Your task to perform on an android device: add a contact Image 0: 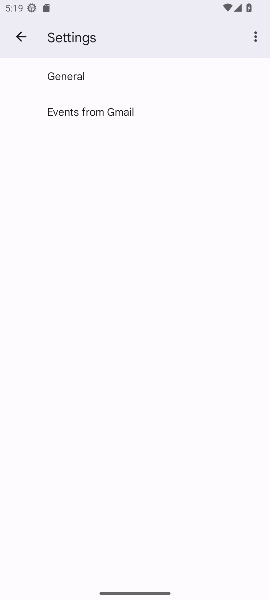
Step 0: press home button
Your task to perform on an android device: add a contact Image 1: 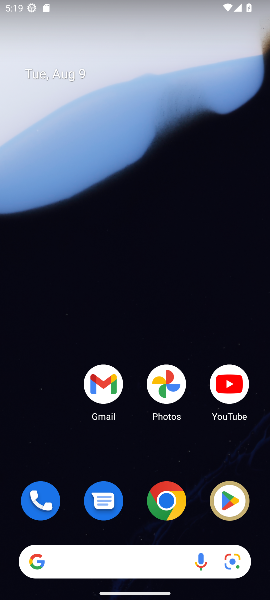
Step 1: drag from (137, 467) to (37, 24)
Your task to perform on an android device: add a contact Image 2: 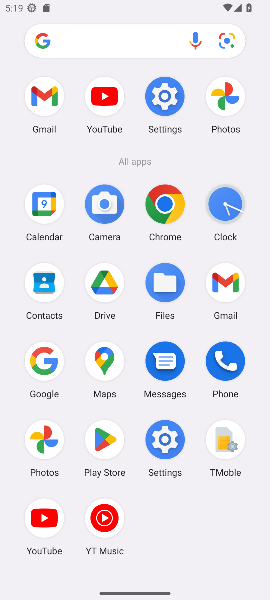
Step 2: click (232, 360)
Your task to perform on an android device: add a contact Image 3: 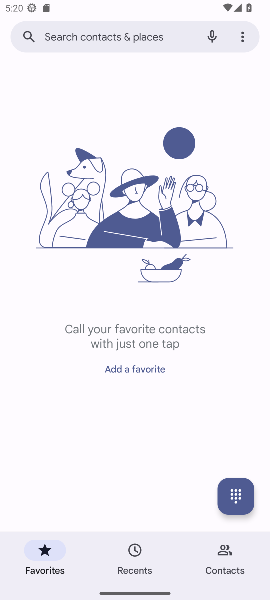
Step 3: press home button
Your task to perform on an android device: add a contact Image 4: 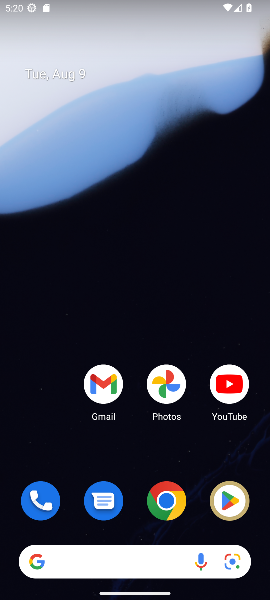
Step 4: drag from (117, 529) to (159, 54)
Your task to perform on an android device: add a contact Image 5: 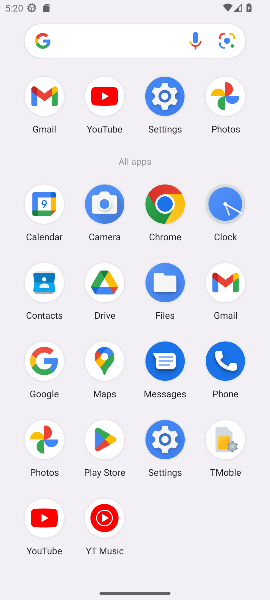
Step 5: click (38, 295)
Your task to perform on an android device: add a contact Image 6: 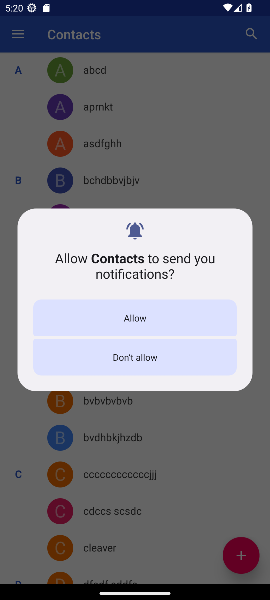
Step 6: click (127, 326)
Your task to perform on an android device: add a contact Image 7: 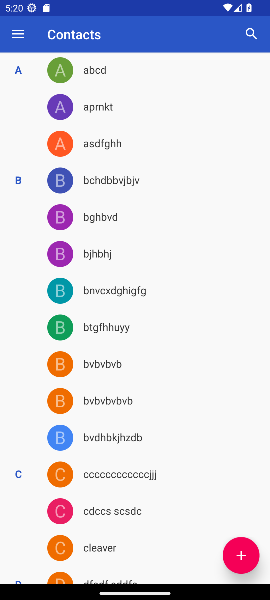
Step 7: click (237, 552)
Your task to perform on an android device: add a contact Image 8: 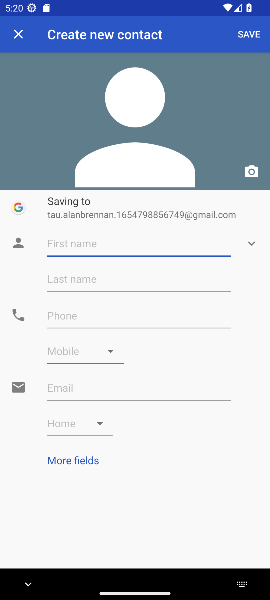
Step 8: type "tyuuuiiiiiiiii"
Your task to perform on an android device: add a contact Image 9: 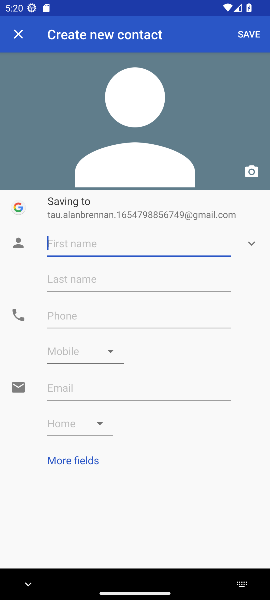
Step 9: click (126, 321)
Your task to perform on an android device: add a contact Image 10: 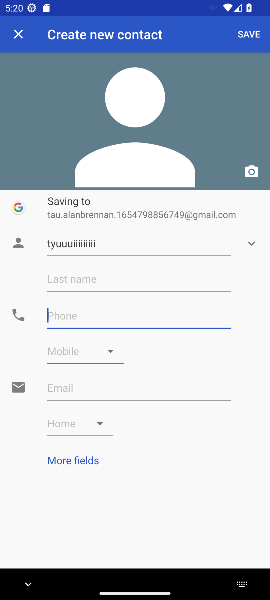
Step 10: click (121, 314)
Your task to perform on an android device: add a contact Image 11: 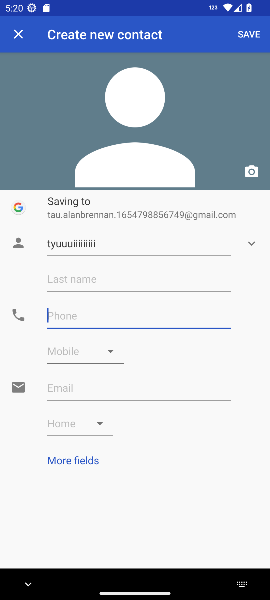
Step 11: type "234444445"
Your task to perform on an android device: add a contact Image 12: 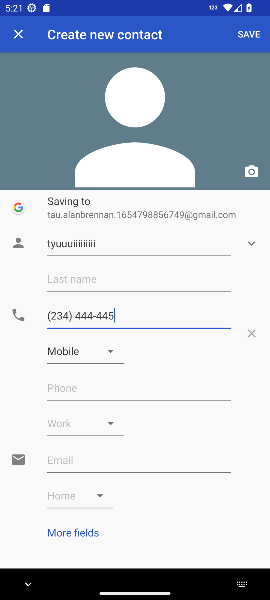
Step 12: click (232, 28)
Your task to perform on an android device: add a contact Image 13: 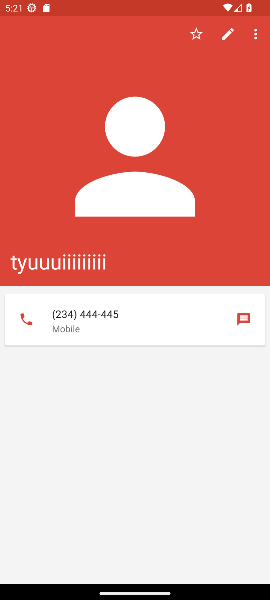
Step 13: task complete